Your task to perform on an android device: Search for pizza restaurants on Maps Image 0: 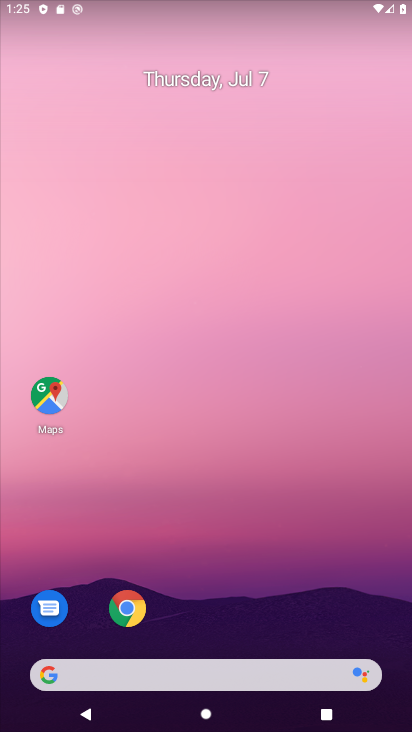
Step 0: drag from (259, 692) to (305, 53)
Your task to perform on an android device: Search for pizza restaurants on Maps Image 1: 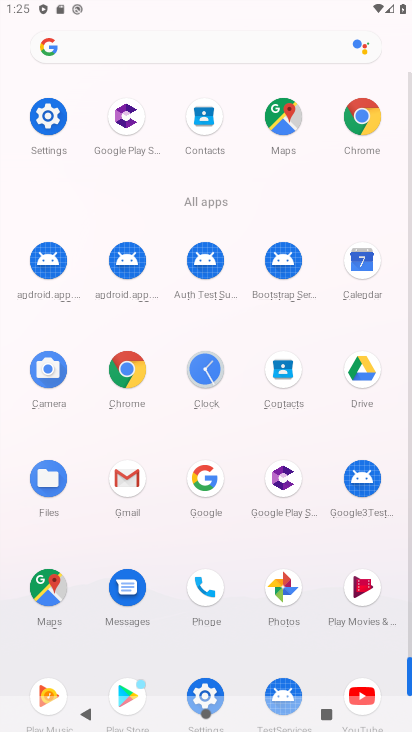
Step 1: click (45, 589)
Your task to perform on an android device: Search for pizza restaurants on Maps Image 2: 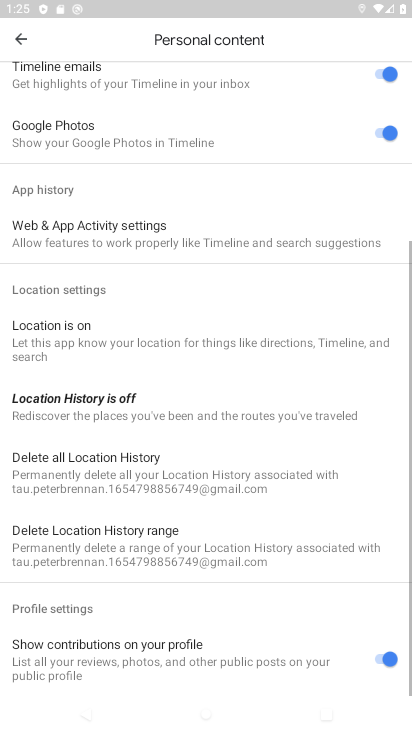
Step 2: press back button
Your task to perform on an android device: Search for pizza restaurants on Maps Image 3: 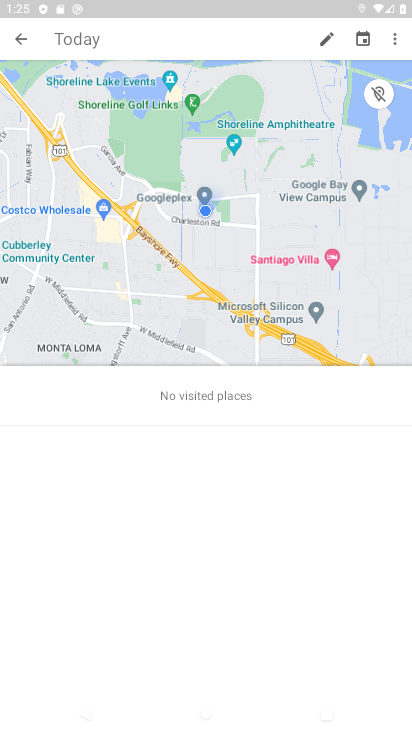
Step 3: press back button
Your task to perform on an android device: Search for pizza restaurants on Maps Image 4: 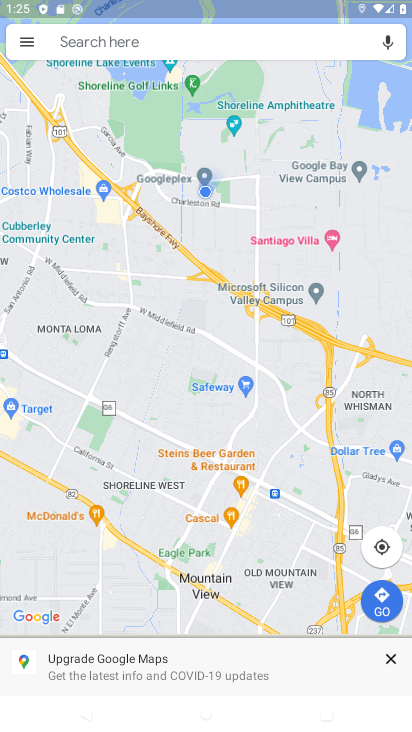
Step 4: click (238, 36)
Your task to perform on an android device: Search for pizza restaurants on Maps Image 5: 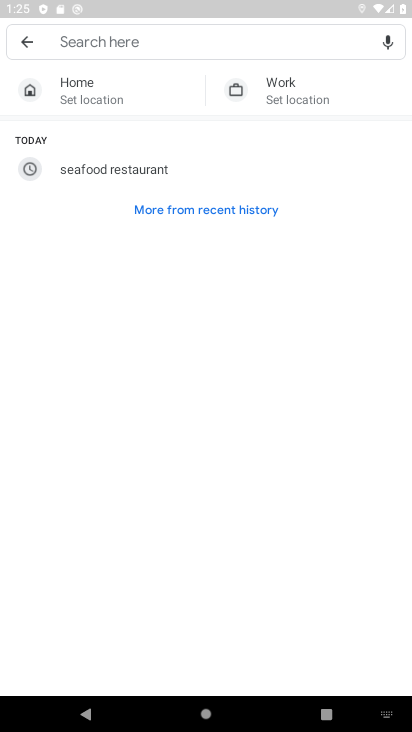
Step 5: type "pizza restaurant"
Your task to perform on an android device: Search for pizza restaurants on Maps Image 6: 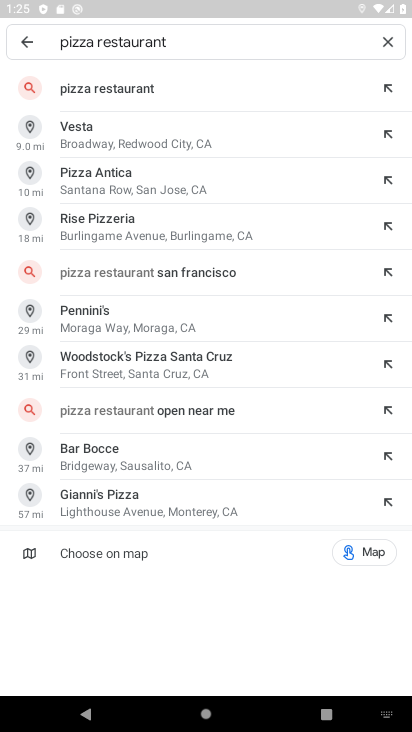
Step 6: click (115, 88)
Your task to perform on an android device: Search for pizza restaurants on Maps Image 7: 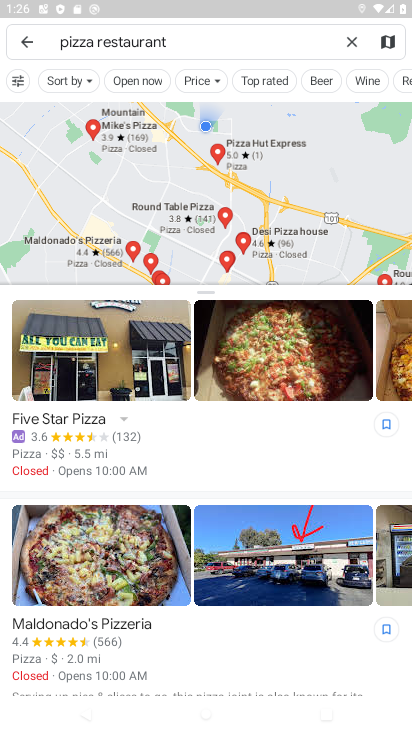
Step 7: task complete